Your task to perform on an android device: turn off location Image 0: 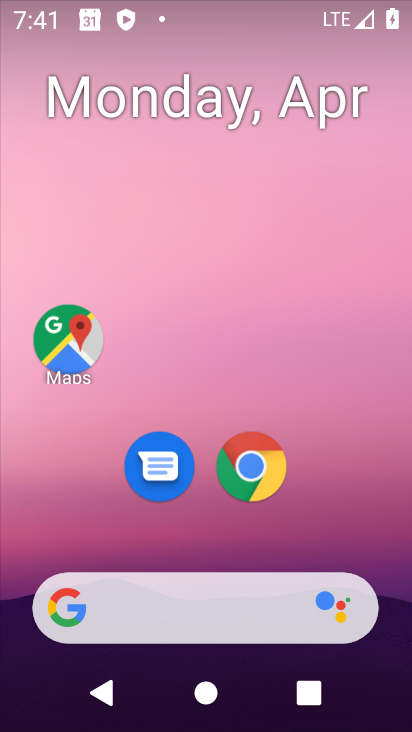
Step 0: drag from (194, 20) to (155, 1)
Your task to perform on an android device: turn off location Image 1: 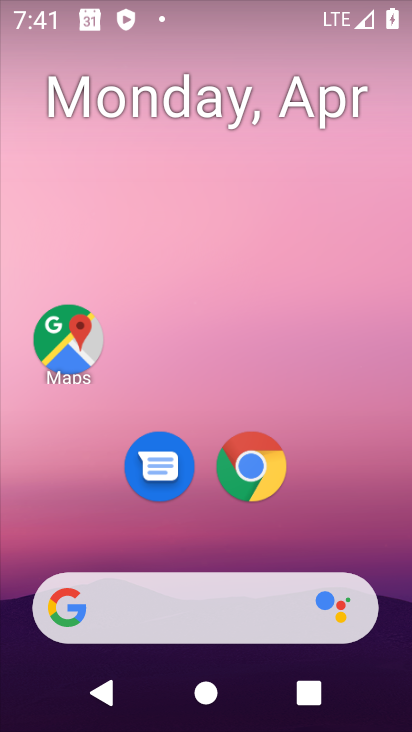
Step 1: click (254, 465)
Your task to perform on an android device: turn off location Image 2: 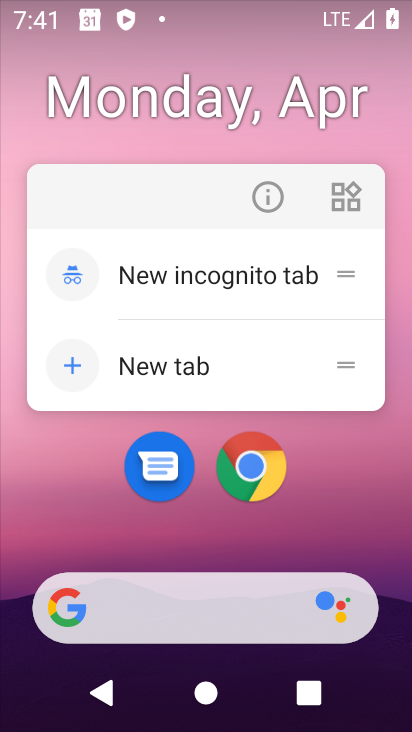
Step 2: click (271, 197)
Your task to perform on an android device: turn off location Image 3: 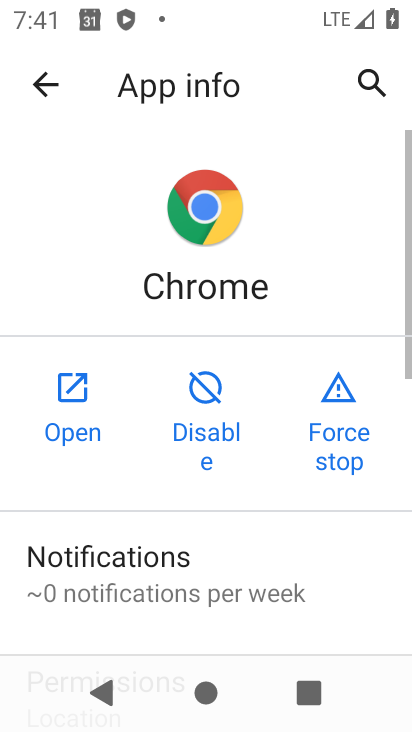
Step 3: click (73, 399)
Your task to perform on an android device: turn off location Image 4: 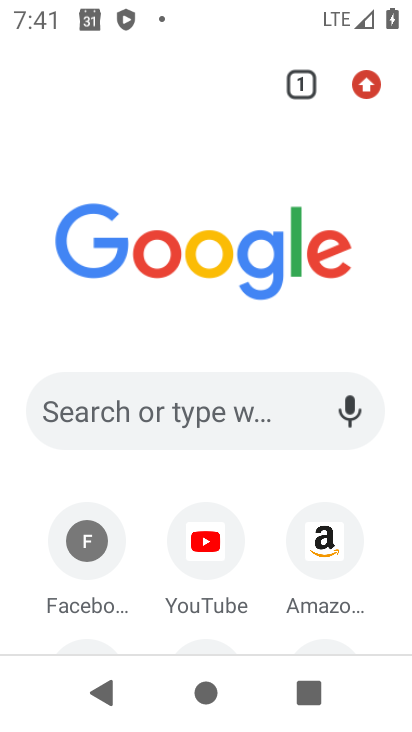
Step 4: press home button
Your task to perform on an android device: turn off location Image 5: 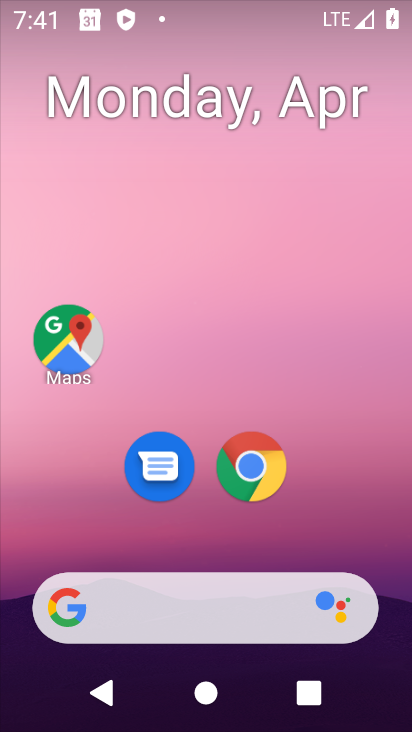
Step 5: drag from (200, 486) to (234, 2)
Your task to perform on an android device: turn off location Image 6: 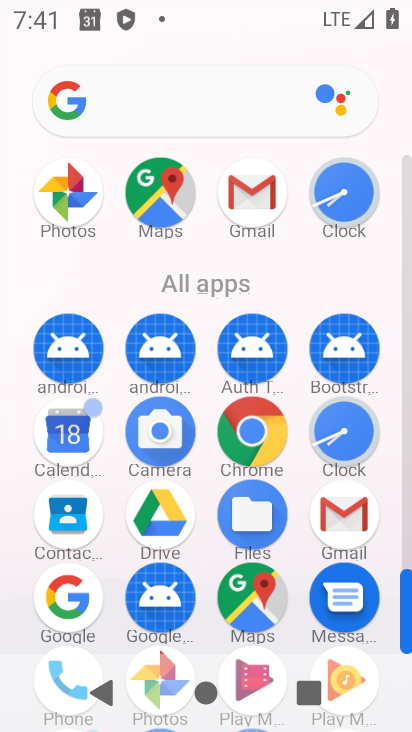
Step 6: drag from (216, 579) to (223, 183)
Your task to perform on an android device: turn off location Image 7: 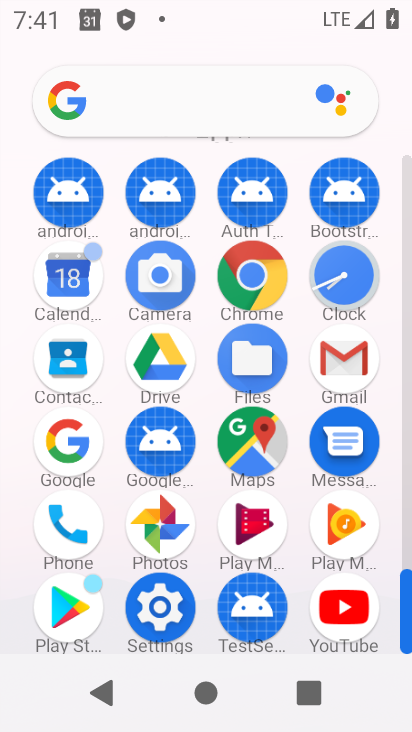
Step 7: click (166, 611)
Your task to perform on an android device: turn off location Image 8: 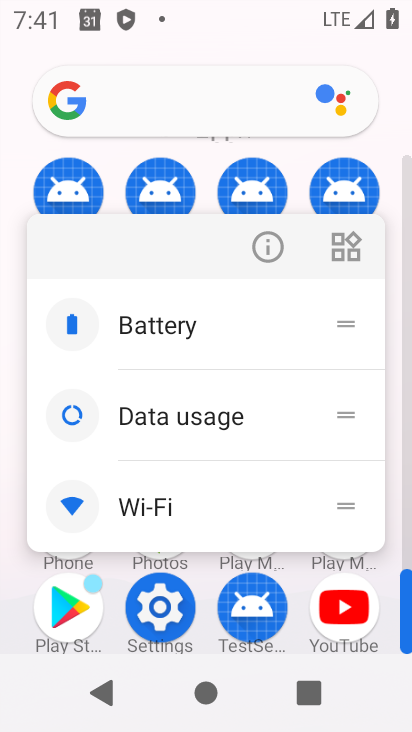
Step 8: click (274, 246)
Your task to perform on an android device: turn off location Image 9: 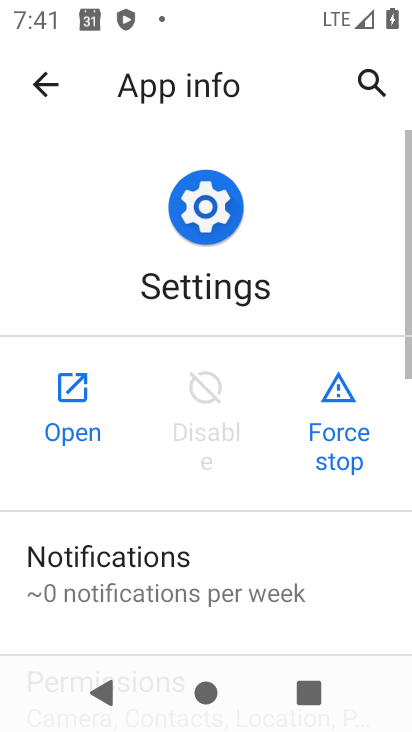
Step 9: click (88, 421)
Your task to perform on an android device: turn off location Image 10: 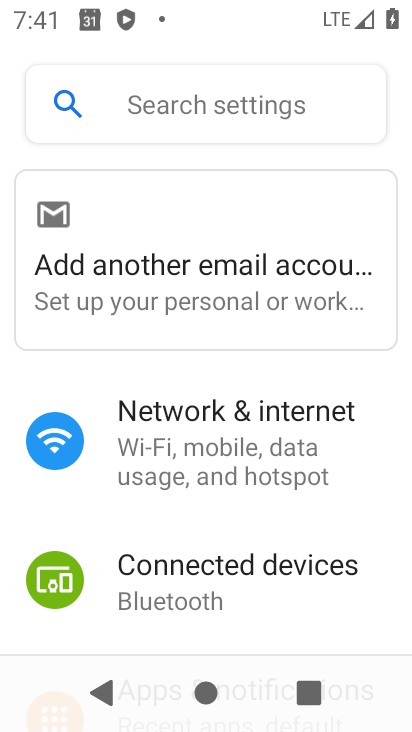
Step 10: drag from (299, 554) to (332, 128)
Your task to perform on an android device: turn off location Image 11: 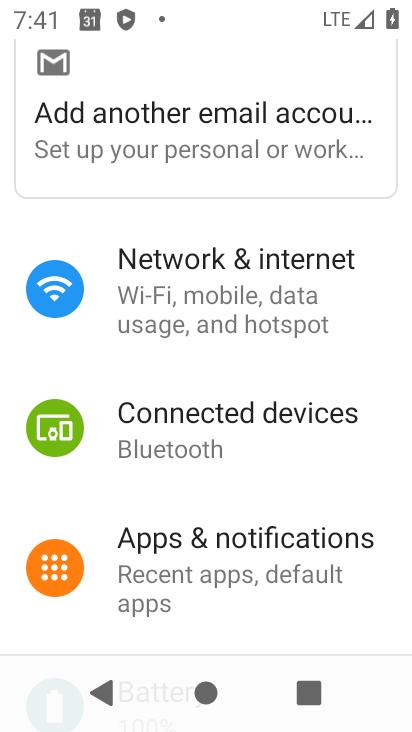
Step 11: drag from (251, 575) to (268, 149)
Your task to perform on an android device: turn off location Image 12: 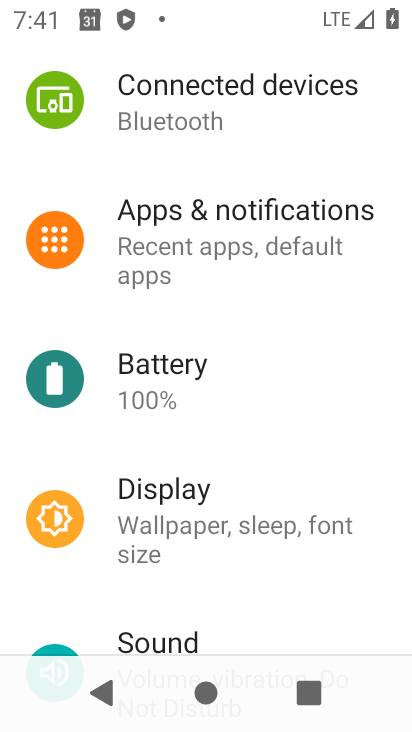
Step 12: drag from (218, 580) to (241, 156)
Your task to perform on an android device: turn off location Image 13: 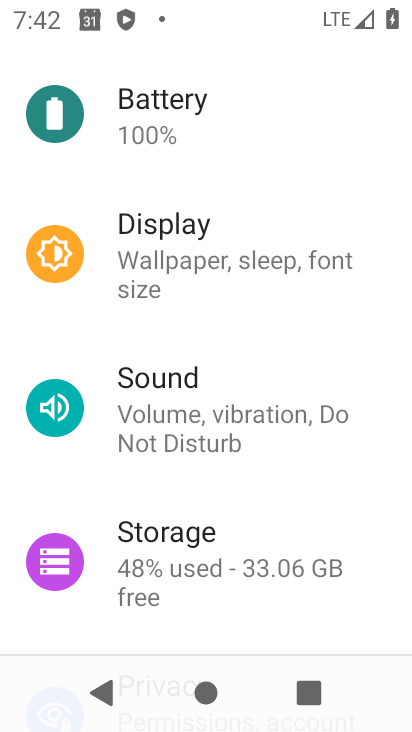
Step 13: drag from (235, 556) to (312, 72)
Your task to perform on an android device: turn off location Image 14: 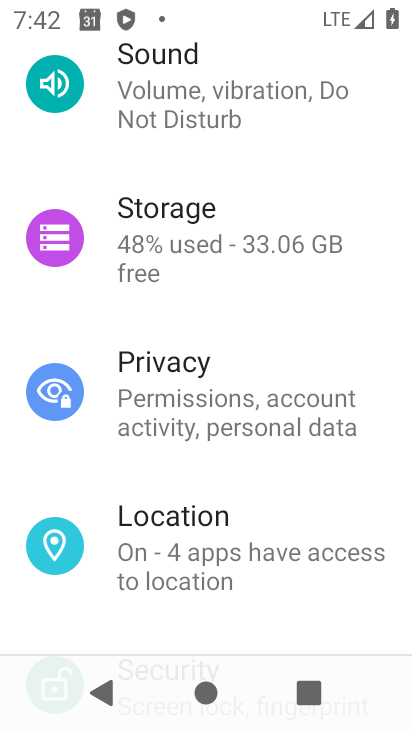
Step 14: click (219, 565)
Your task to perform on an android device: turn off location Image 15: 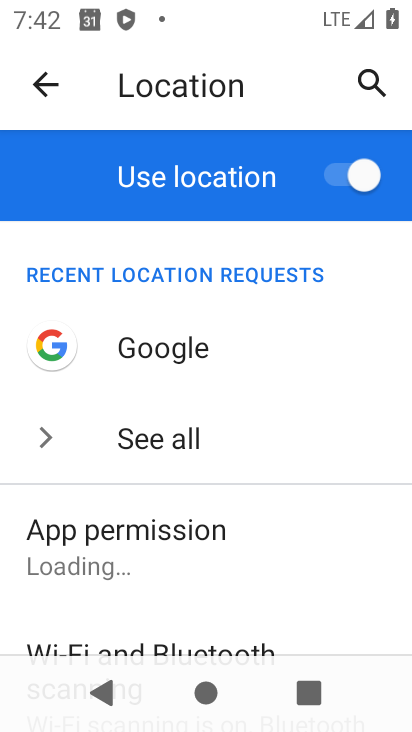
Step 15: click (367, 156)
Your task to perform on an android device: turn off location Image 16: 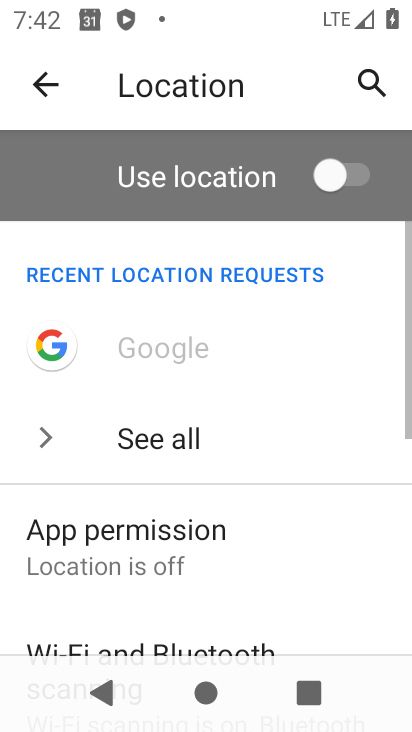
Step 16: task complete